Your task to perform on an android device: Clear the shopping cart on target.com. Search for "usb-a to usb-b" on target.com, select the first entry, add it to the cart, then select checkout. Image 0: 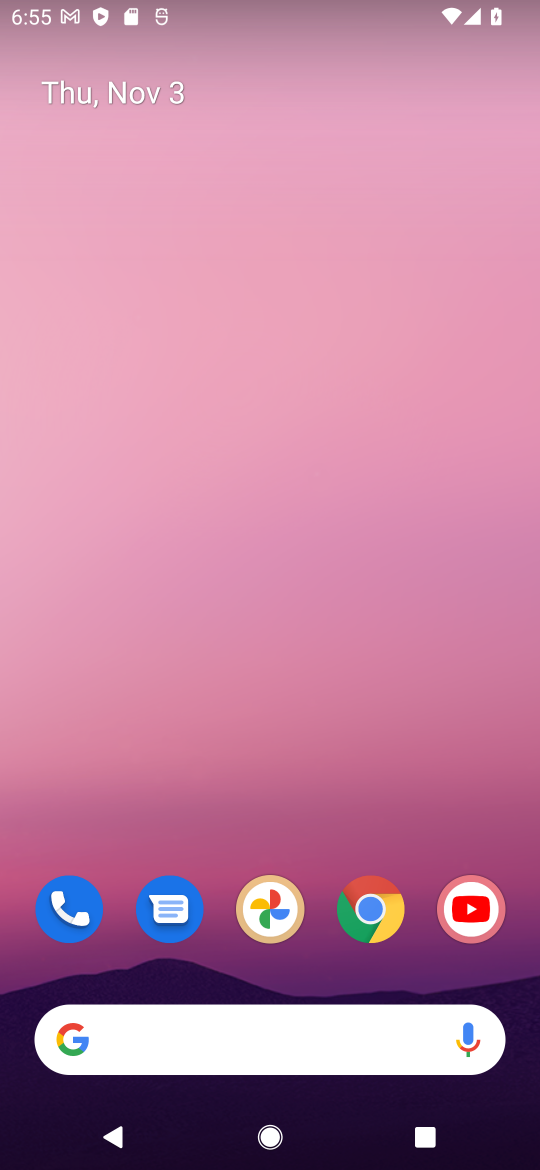
Step 0: drag from (242, 940) to (290, 316)
Your task to perform on an android device: Clear the shopping cart on target.com. Search for "usb-a to usb-b" on target.com, select the first entry, add it to the cart, then select checkout. Image 1: 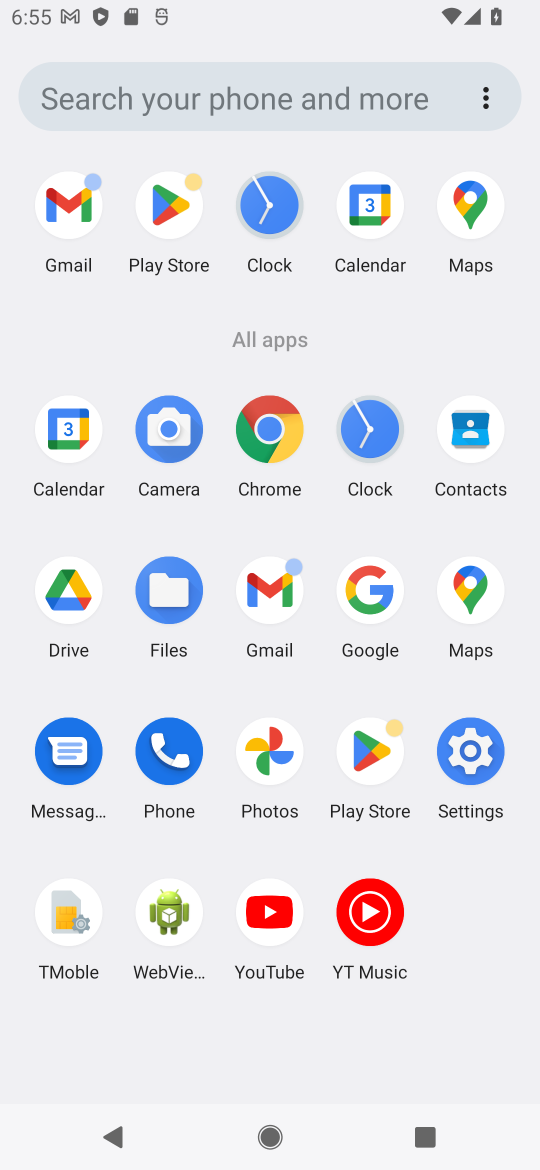
Step 1: click (375, 569)
Your task to perform on an android device: Clear the shopping cart on target.com. Search for "usb-a to usb-b" on target.com, select the first entry, add it to the cart, then select checkout. Image 2: 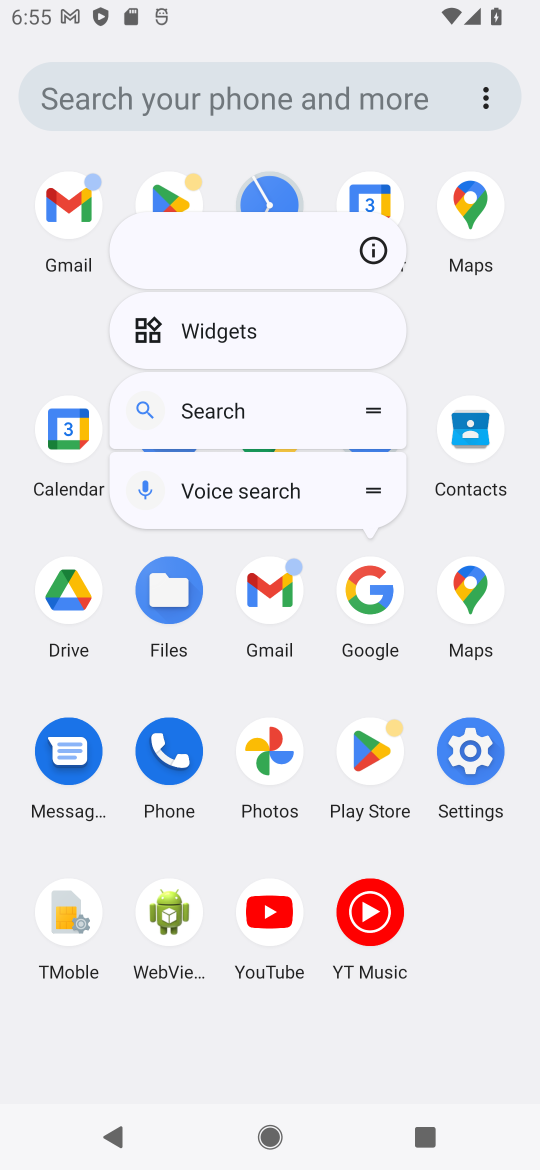
Step 2: click (375, 569)
Your task to perform on an android device: Clear the shopping cart on target.com. Search for "usb-a to usb-b" on target.com, select the first entry, add it to the cart, then select checkout. Image 3: 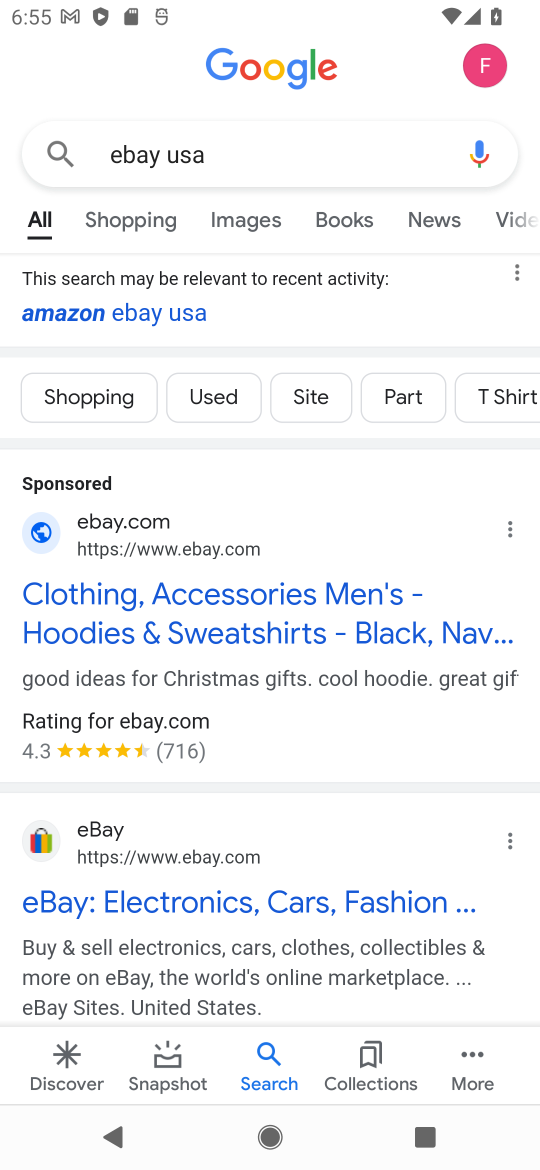
Step 3: click (183, 144)
Your task to perform on an android device: Clear the shopping cart on target.com. Search for "usb-a to usb-b" on target.com, select the first entry, add it to the cart, then select checkout. Image 4: 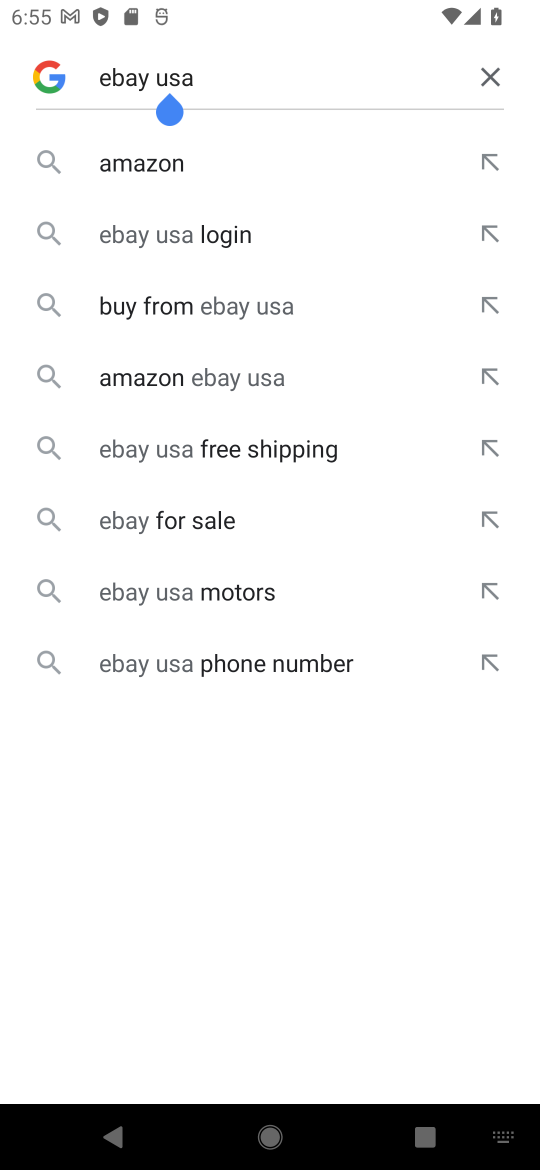
Step 4: click (487, 79)
Your task to perform on an android device: Clear the shopping cart on target.com. Search for "usb-a to usb-b" on target.com, select the first entry, add it to the cart, then select checkout. Image 5: 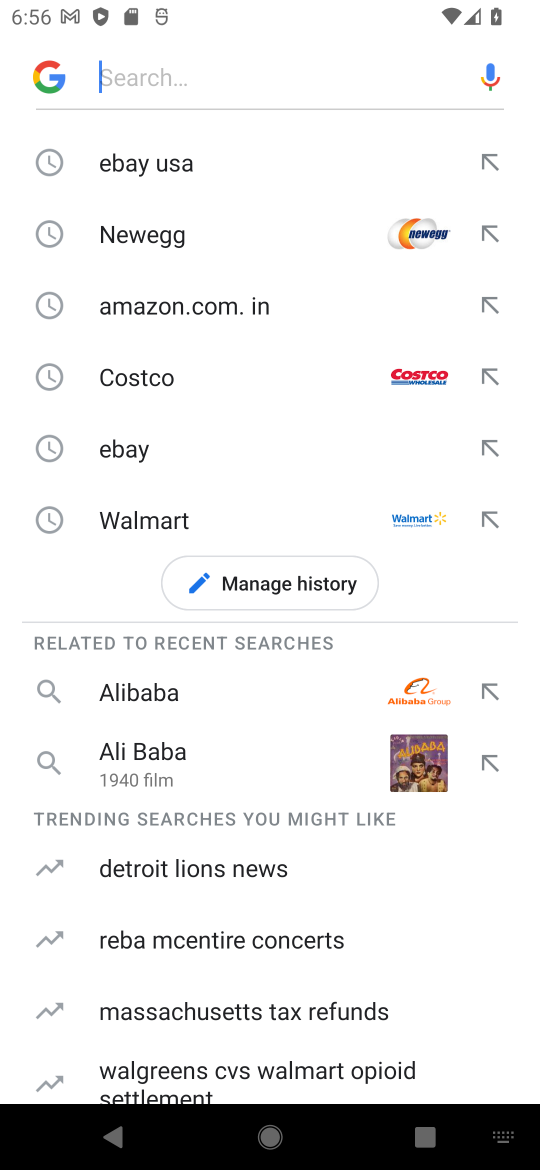
Step 5: click (194, 66)
Your task to perform on an android device: Clear the shopping cart on target.com. Search for "usb-a to usb-b" on target.com, select the first entry, add it to the cart, then select checkout. Image 6: 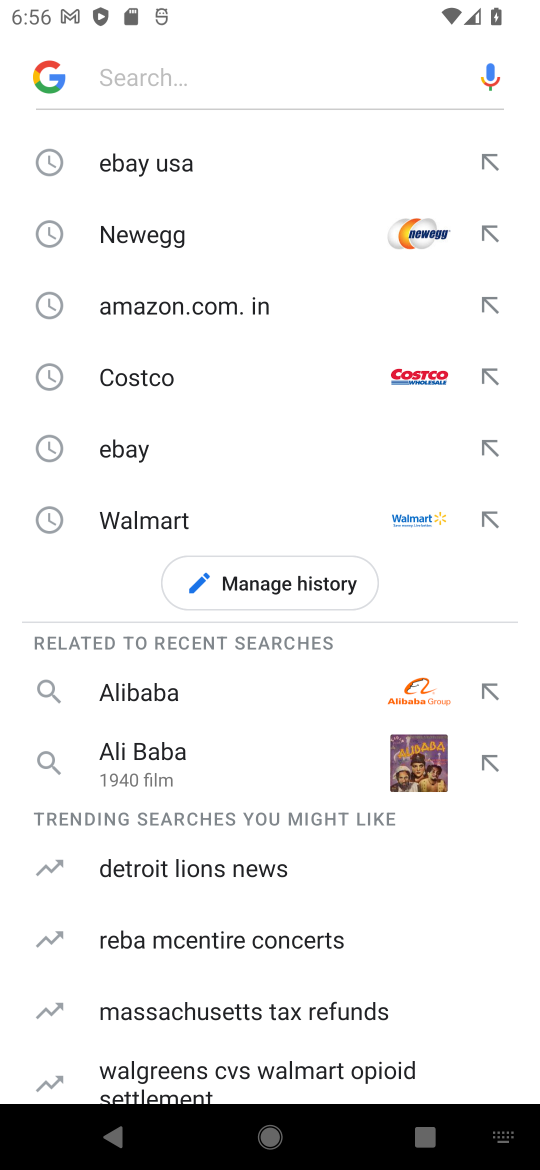
Step 6: type "target "
Your task to perform on an android device: Clear the shopping cart on target.com. Search for "usb-a to usb-b" on target.com, select the first entry, add it to the cart, then select checkout. Image 7: 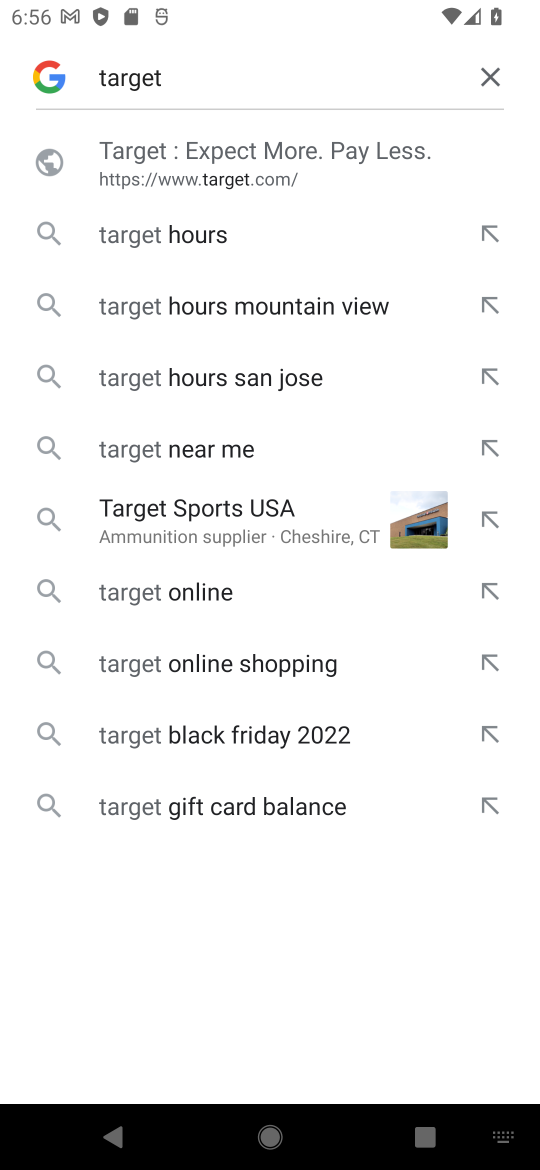
Step 7: click (242, 150)
Your task to perform on an android device: Clear the shopping cart on target.com. Search for "usb-a to usb-b" on target.com, select the first entry, add it to the cart, then select checkout. Image 8: 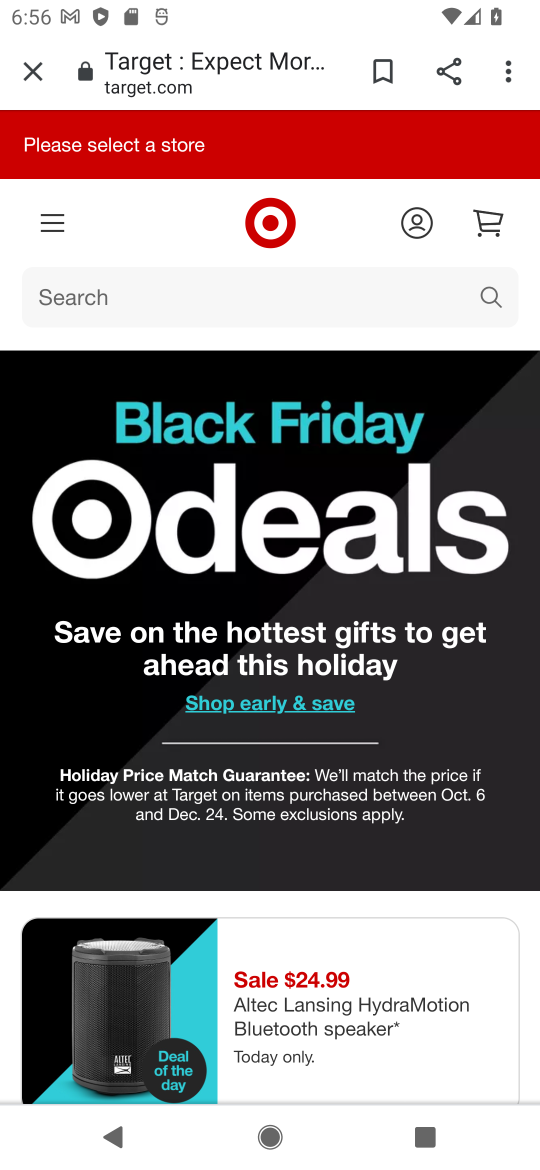
Step 8: click (240, 289)
Your task to perform on an android device: Clear the shopping cart on target.com. Search for "usb-a to usb-b" on target.com, select the first entry, add it to the cart, then select checkout. Image 9: 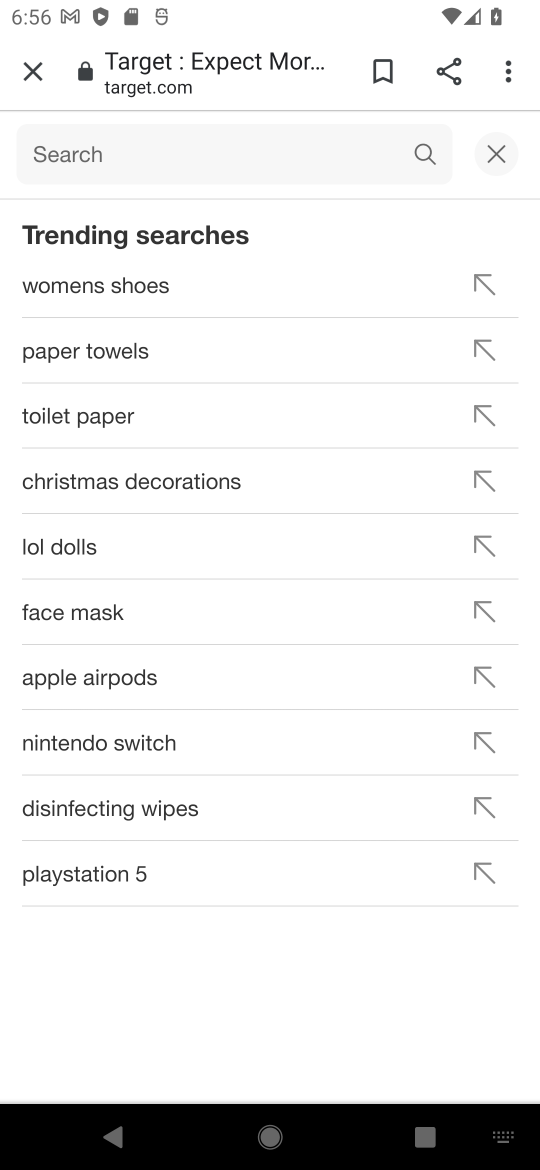
Step 9: type "usb-a to usb-b "
Your task to perform on an android device: Clear the shopping cart on target.com. Search for "usb-a to usb-b" on target.com, select the first entry, add it to the cart, then select checkout. Image 10: 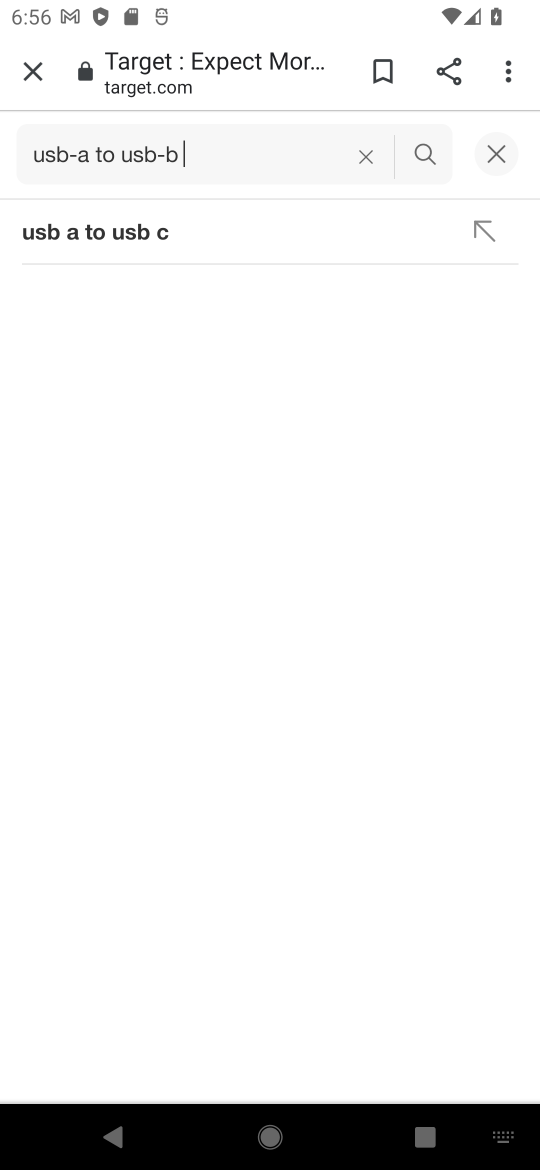
Step 10: click (179, 238)
Your task to perform on an android device: Clear the shopping cart on target.com. Search for "usb-a to usb-b" on target.com, select the first entry, add it to the cart, then select checkout. Image 11: 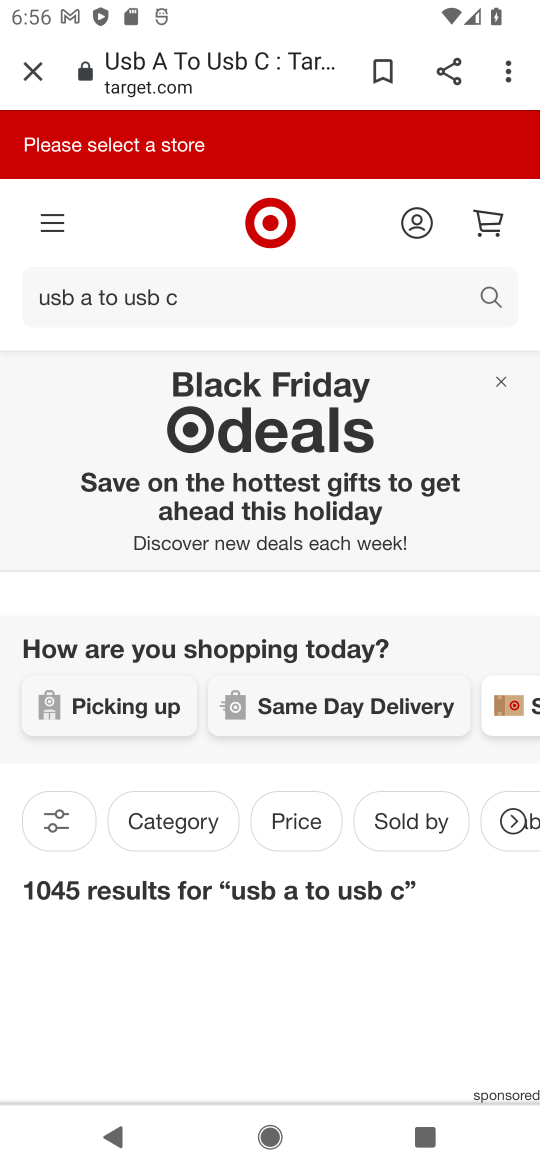
Step 11: drag from (256, 1027) to (275, 307)
Your task to perform on an android device: Clear the shopping cart on target.com. Search for "usb-a to usb-b" on target.com, select the first entry, add it to the cart, then select checkout. Image 12: 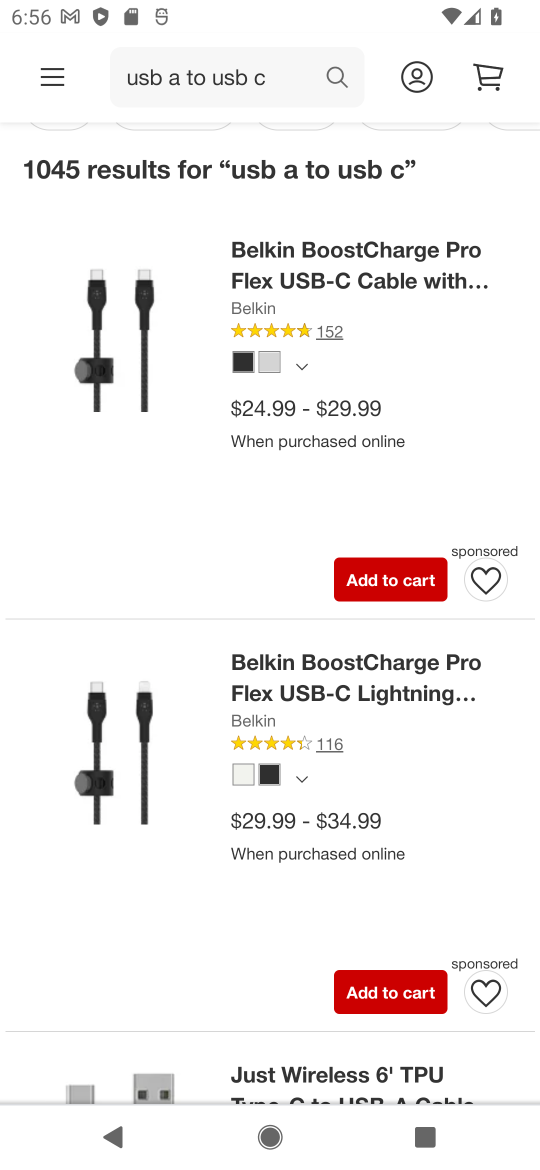
Step 12: click (366, 576)
Your task to perform on an android device: Clear the shopping cart on target.com. Search for "usb-a to usb-b" on target.com, select the first entry, add it to the cart, then select checkout. Image 13: 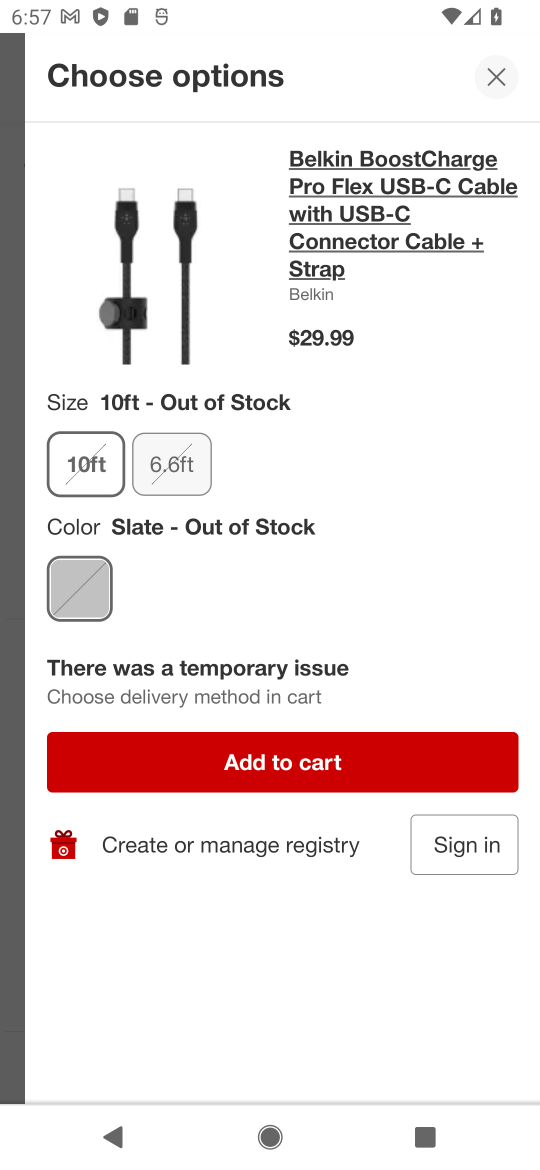
Step 13: click (309, 760)
Your task to perform on an android device: Clear the shopping cart on target.com. Search for "usb-a to usb-b" on target.com, select the first entry, add it to the cart, then select checkout. Image 14: 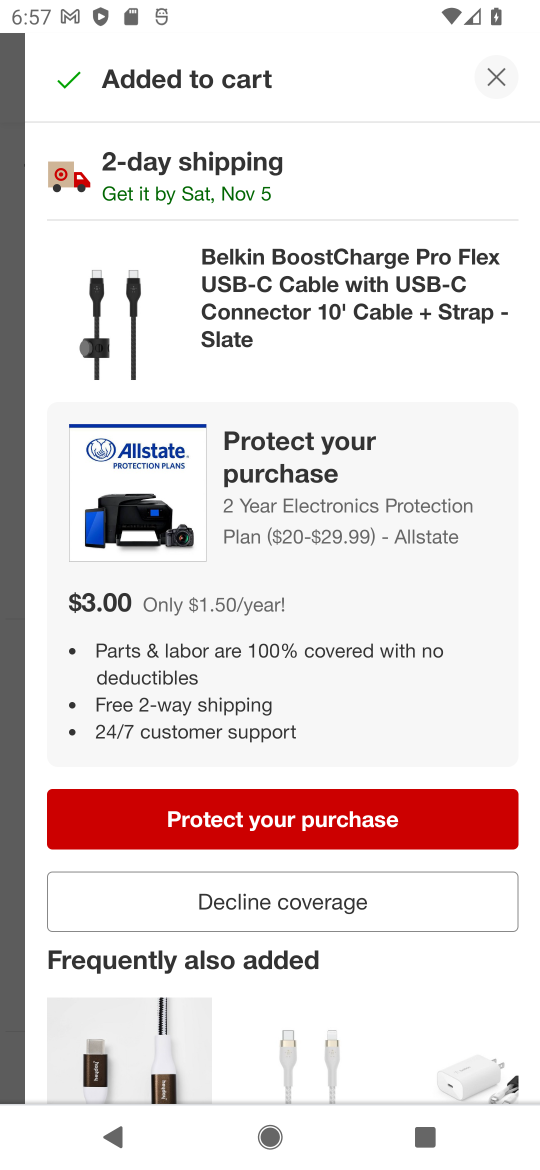
Step 14: task complete